Your task to perform on an android device: Open accessibility settings Image 0: 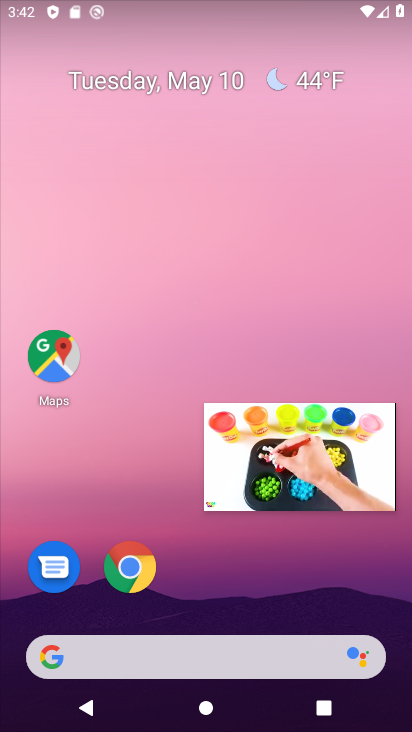
Step 0: click (333, 429)
Your task to perform on an android device: Open accessibility settings Image 1: 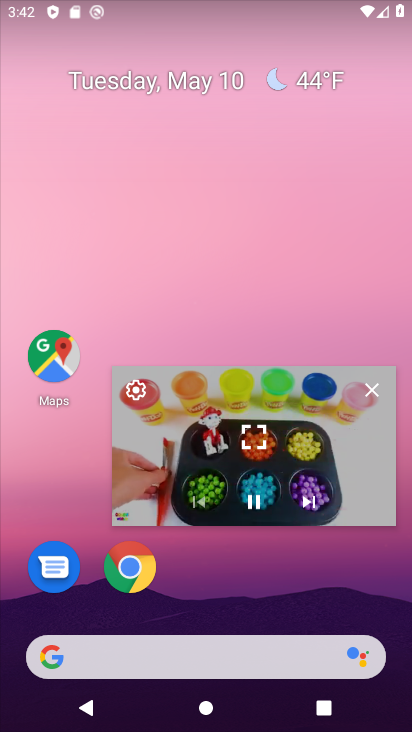
Step 1: click (371, 386)
Your task to perform on an android device: Open accessibility settings Image 2: 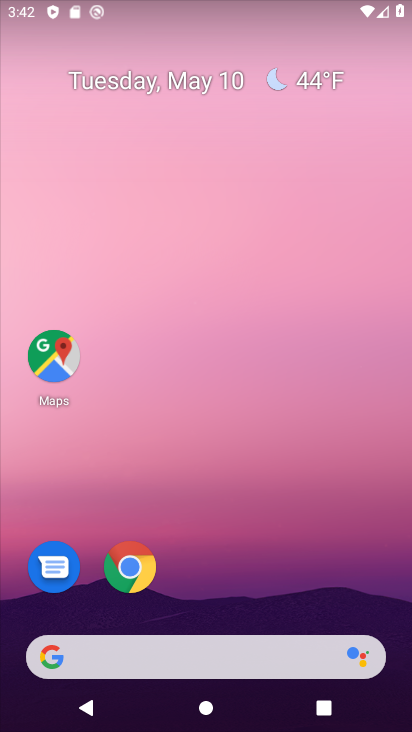
Step 2: drag from (213, 563) to (238, 39)
Your task to perform on an android device: Open accessibility settings Image 3: 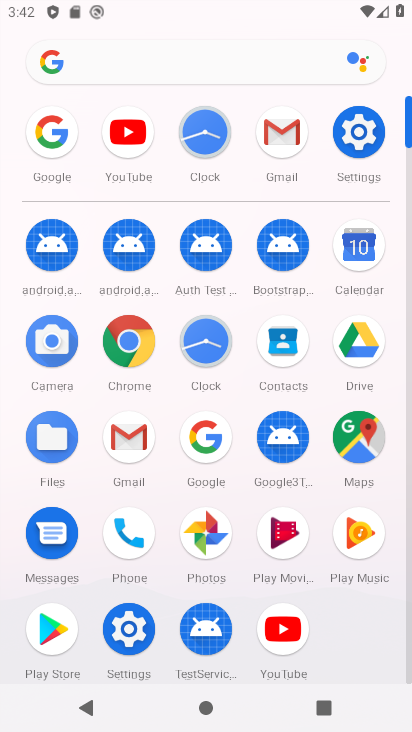
Step 3: click (131, 631)
Your task to perform on an android device: Open accessibility settings Image 4: 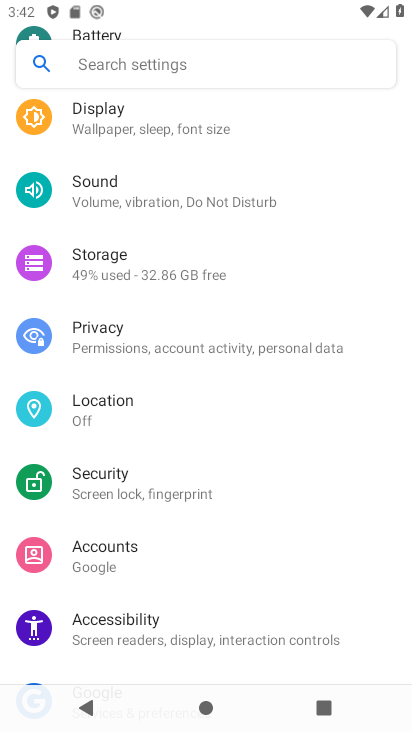
Step 4: click (137, 616)
Your task to perform on an android device: Open accessibility settings Image 5: 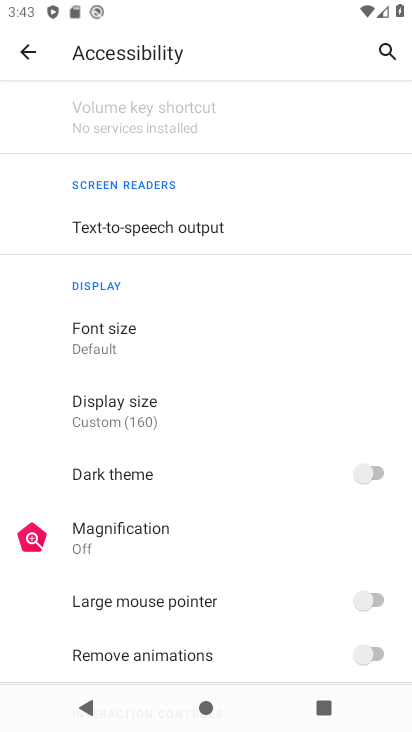
Step 5: task complete